Your task to perform on an android device: Show the shopping cart on target. Search for "asus zenbook" on target, select the first entry, and add it to the cart. Image 0: 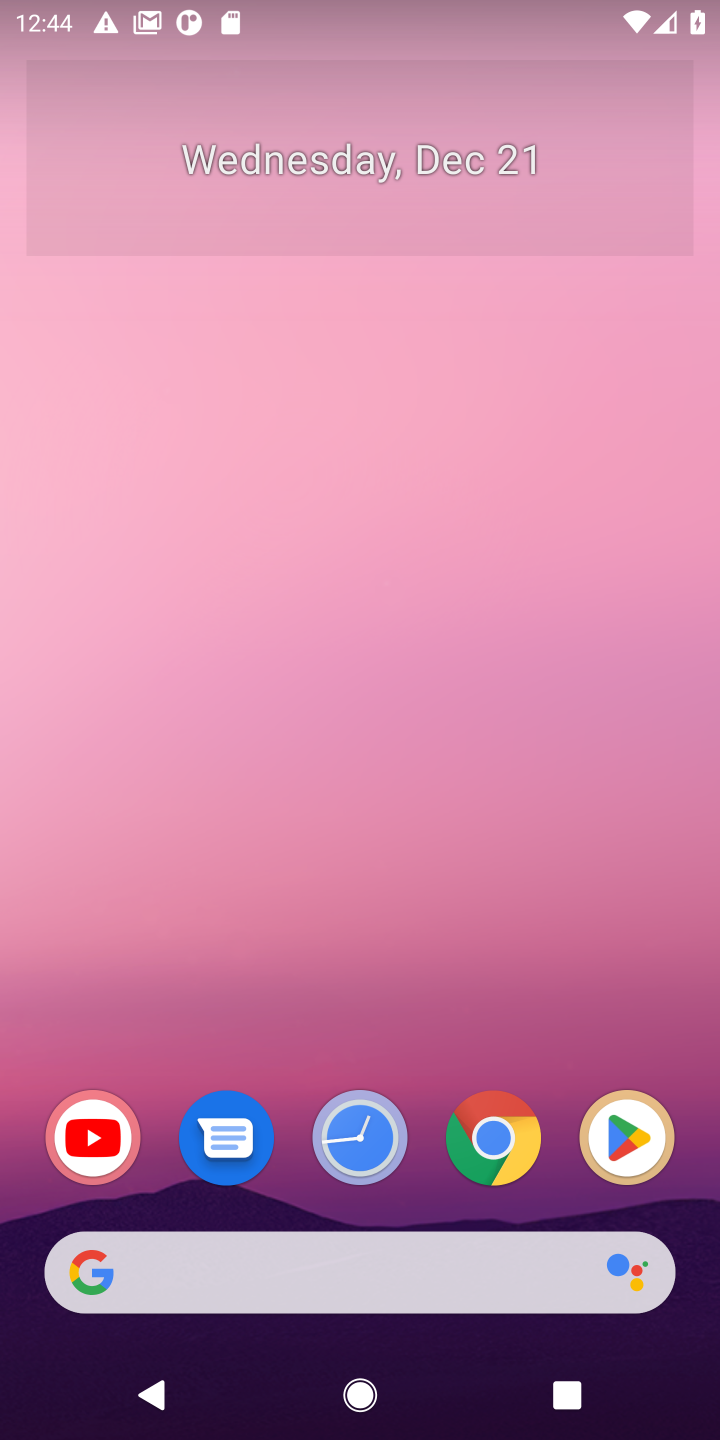
Step 0: click (511, 1162)
Your task to perform on an android device: Show the shopping cart on target. Search for "asus zenbook" on target, select the first entry, and add it to the cart. Image 1: 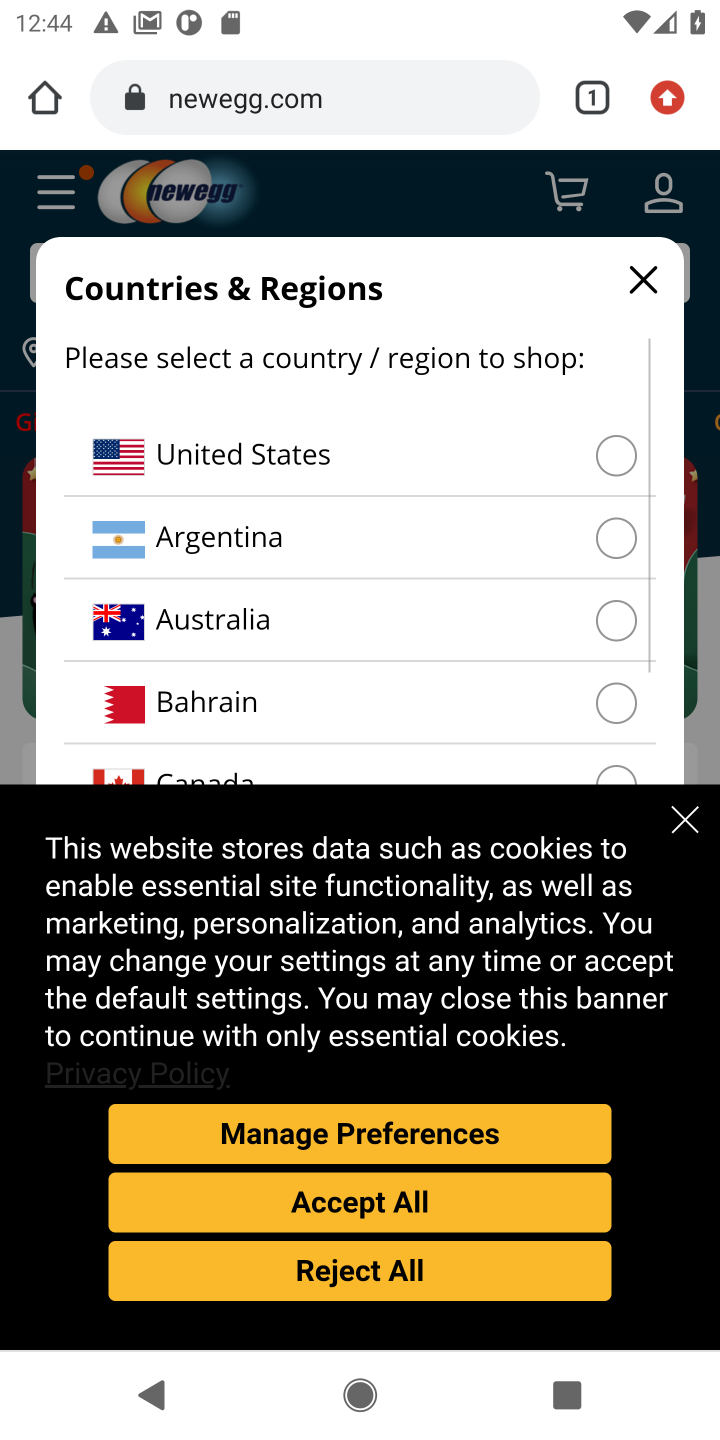
Step 1: click (357, 75)
Your task to perform on an android device: Show the shopping cart on target. Search for "asus zenbook" on target, select the first entry, and add it to the cart. Image 2: 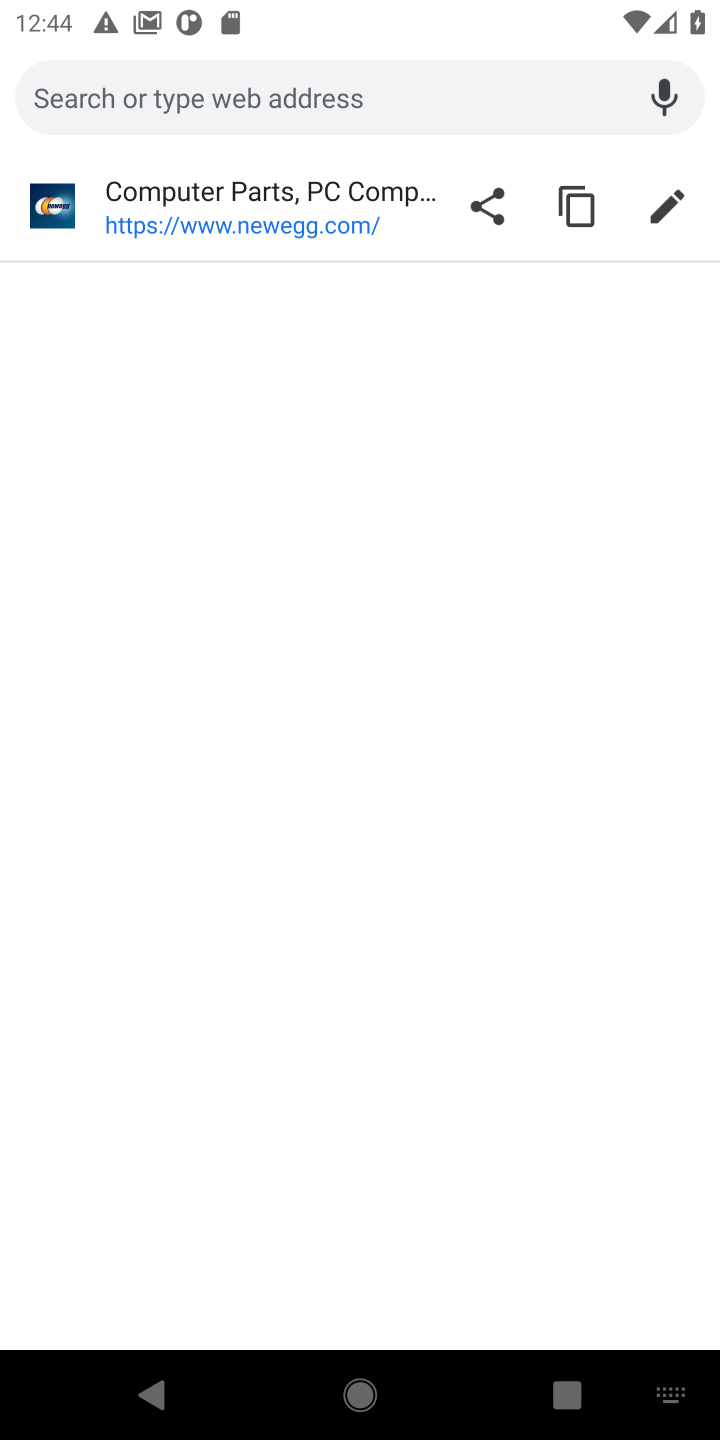
Step 2: type "target"
Your task to perform on an android device: Show the shopping cart on target. Search for "asus zenbook" on target, select the first entry, and add it to the cart. Image 3: 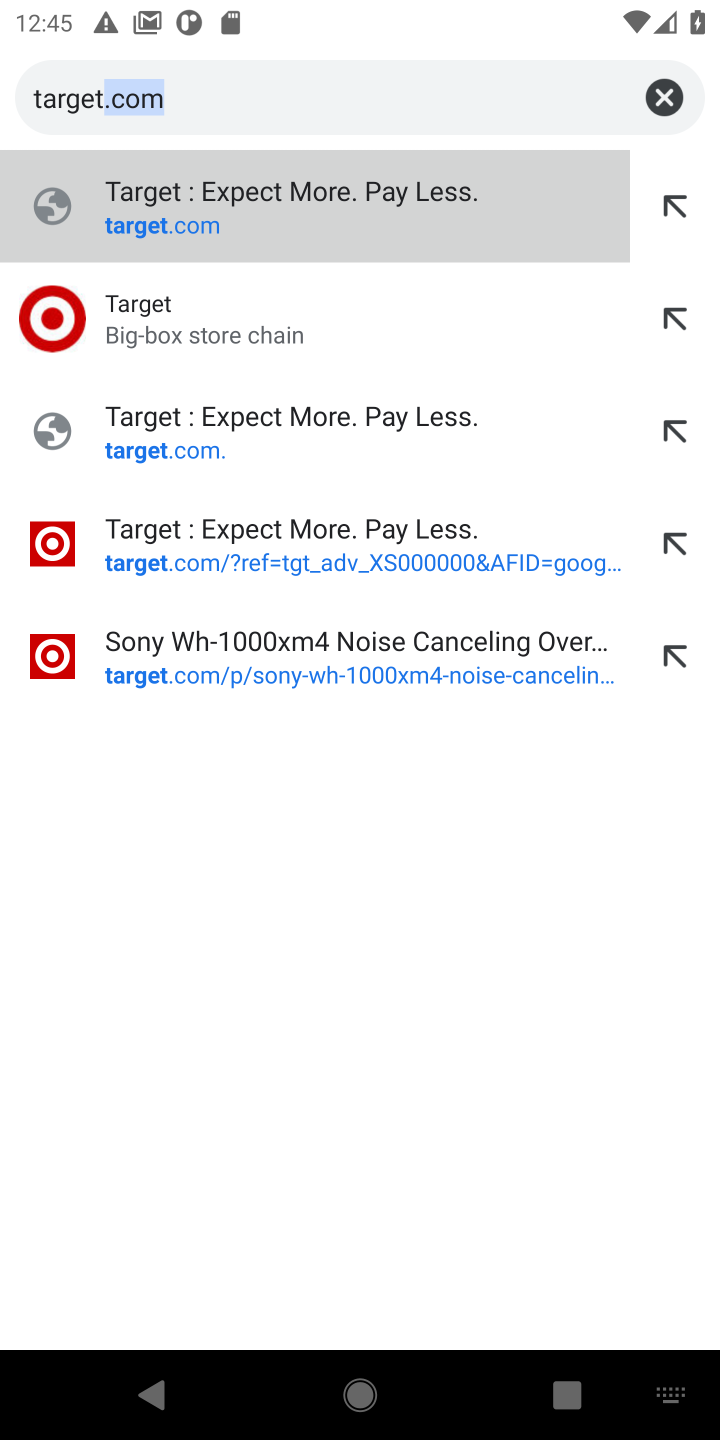
Step 3: click (340, 235)
Your task to perform on an android device: Show the shopping cart on target. Search for "asus zenbook" on target, select the first entry, and add it to the cart. Image 4: 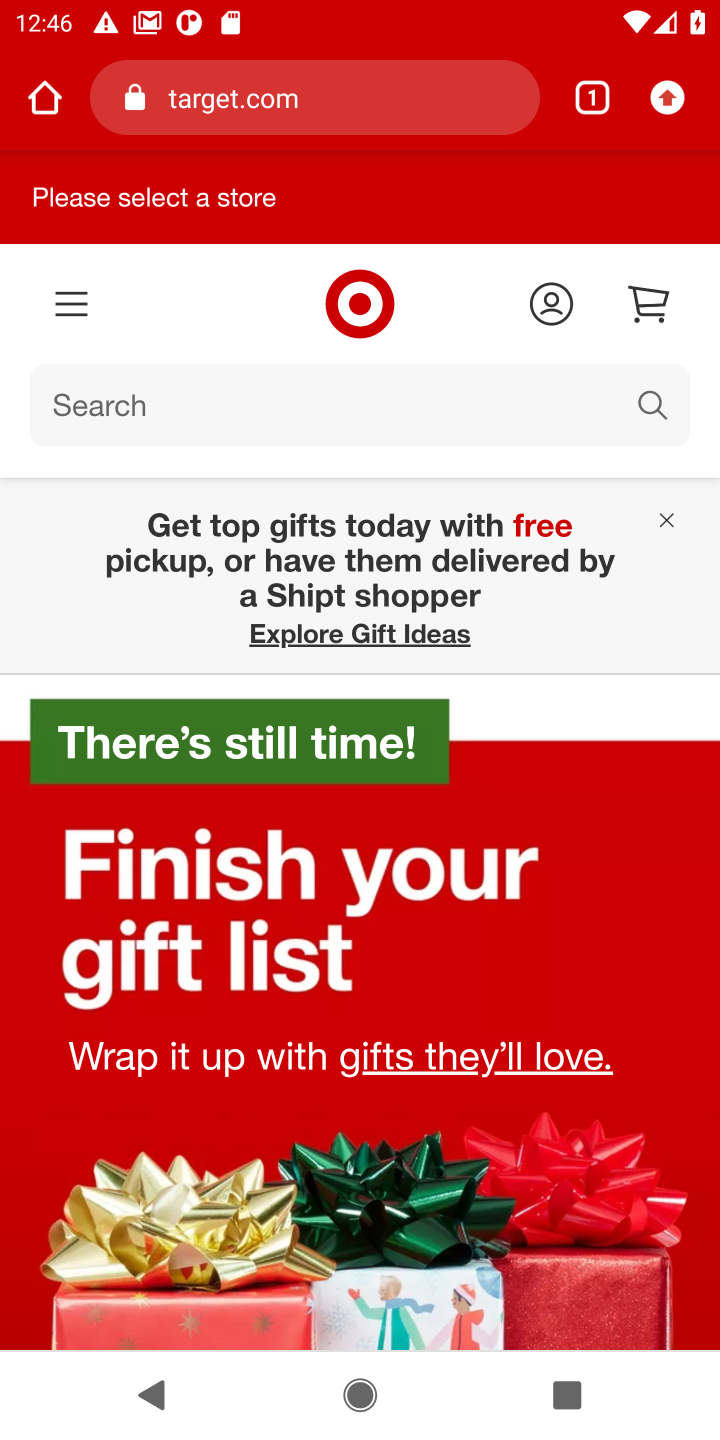
Step 4: click (308, 94)
Your task to perform on an android device: Show the shopping cart on target. Search for "asus zenbook" on target, select the first entry, and add it to the cart. Image 5: 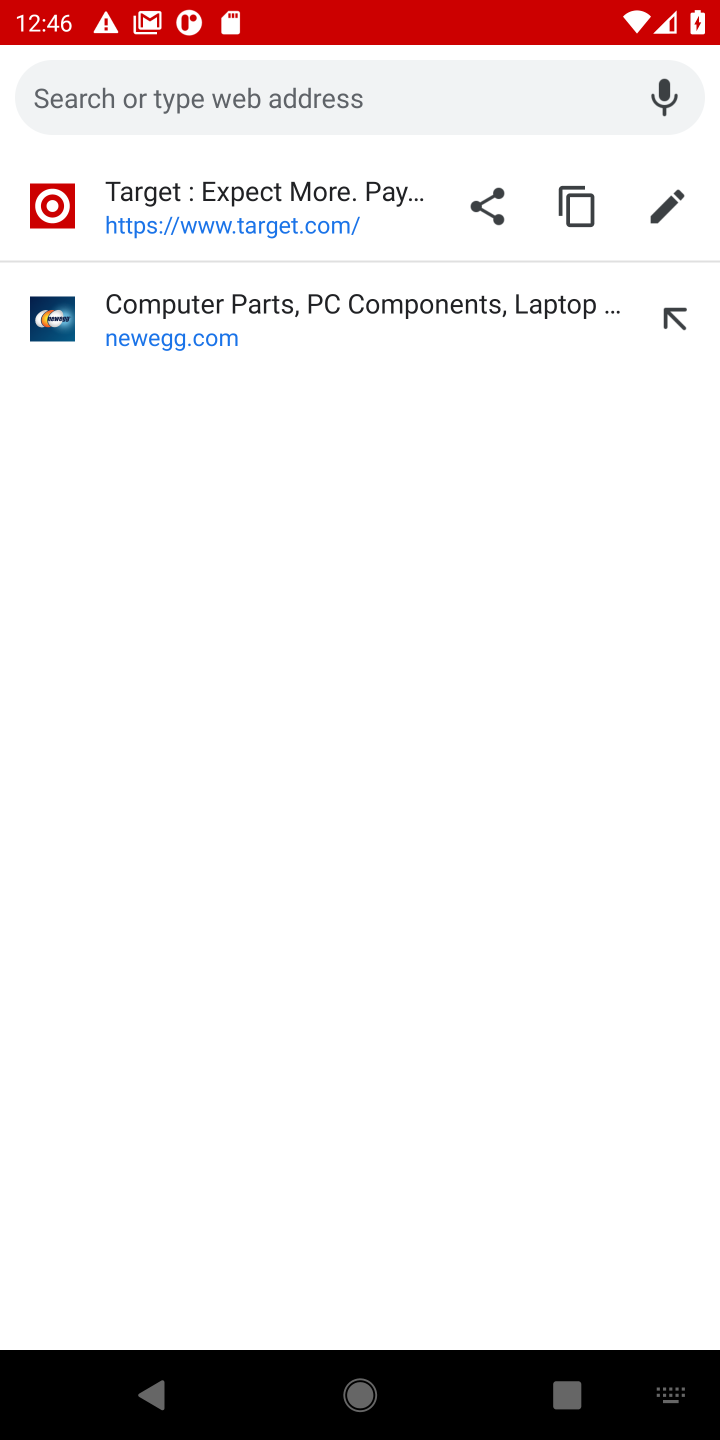
Step 5: click (115, 197)
Your task to perform on an android device: Show the shopping cart on target. Search for "asus zenbook" on target, select the first entry, and add it to the cart. Image 6: 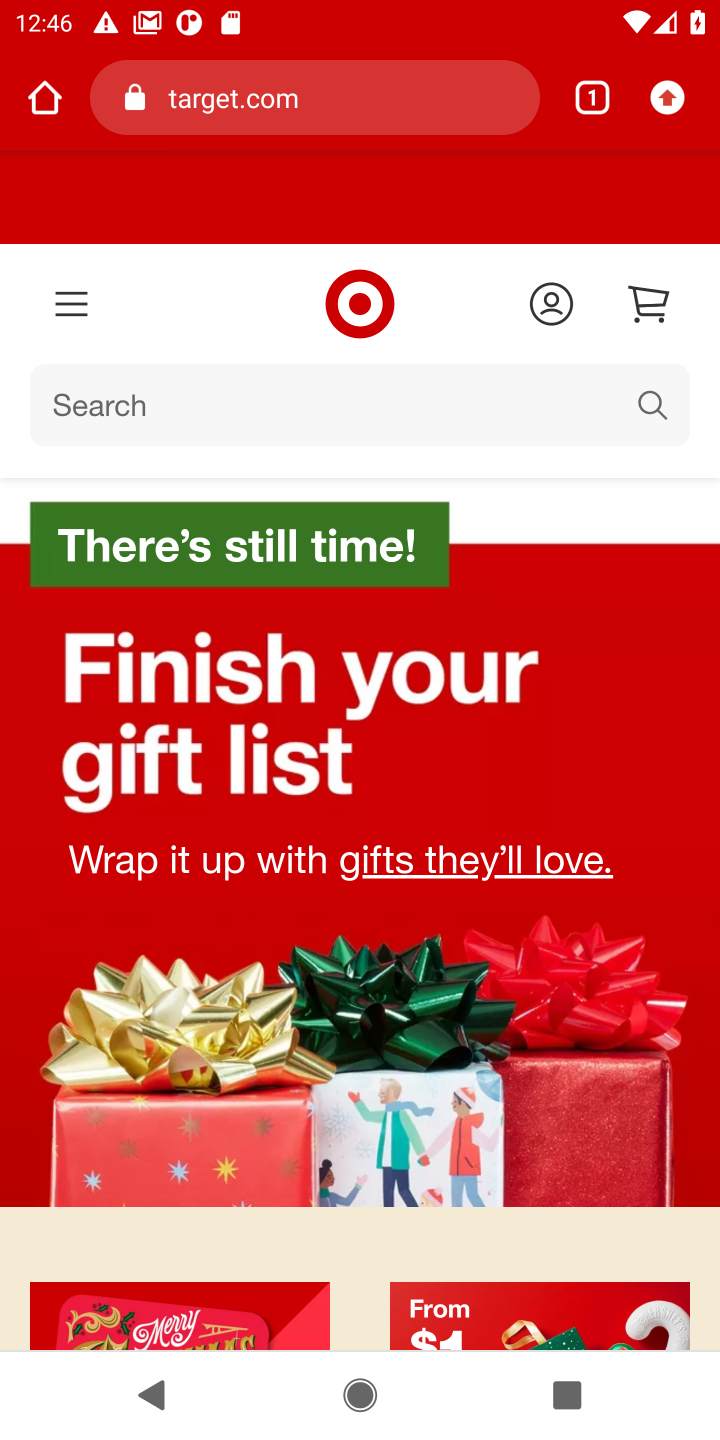
Step 6: click (362, 419)
Your task to perform on an android device: Show the shopping cart on target. Search for "asus zenbook" on target, select the first entry, and add it to the cart. Image 7: 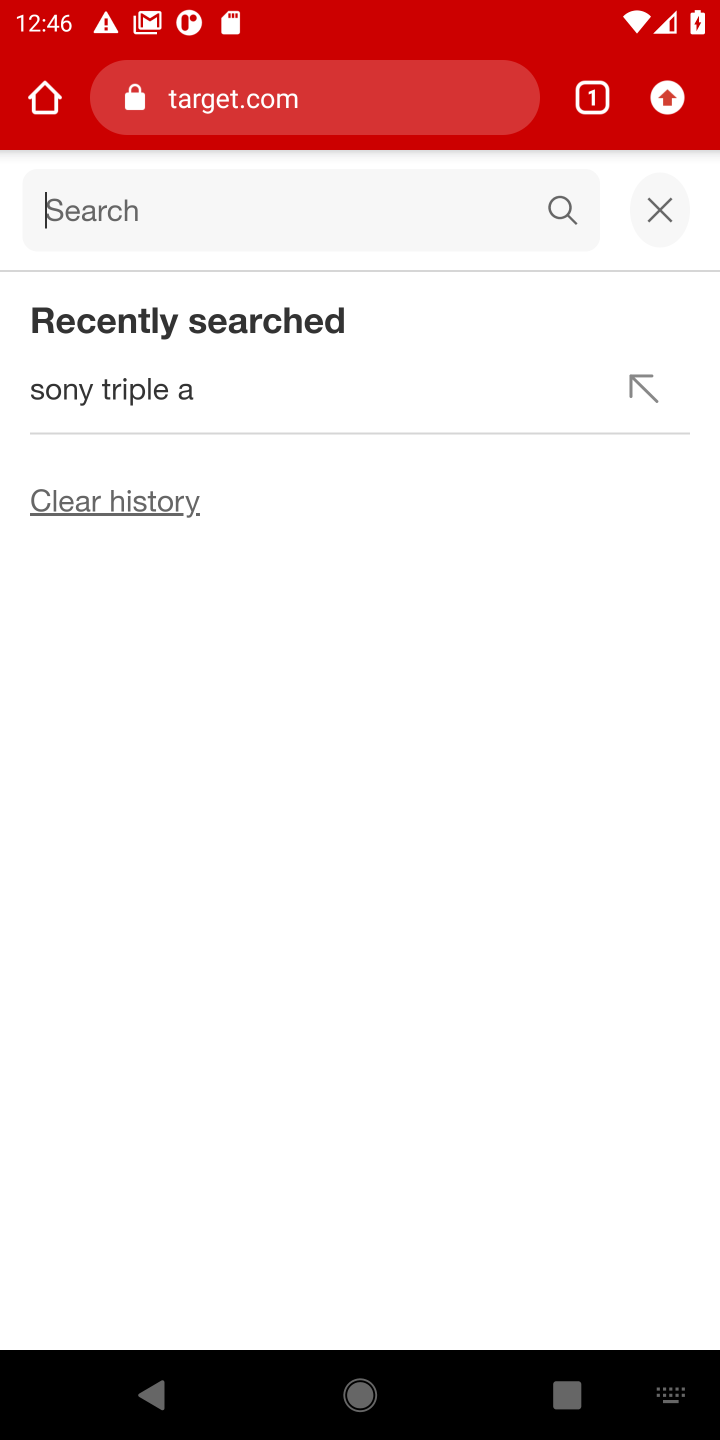
Step 7: type "auas zenbook"
Your task to perform on an android device: Show the shopping cart on target. Search for "asus zenbook" on target, select the first entry, and add it to the cart. Image 8: 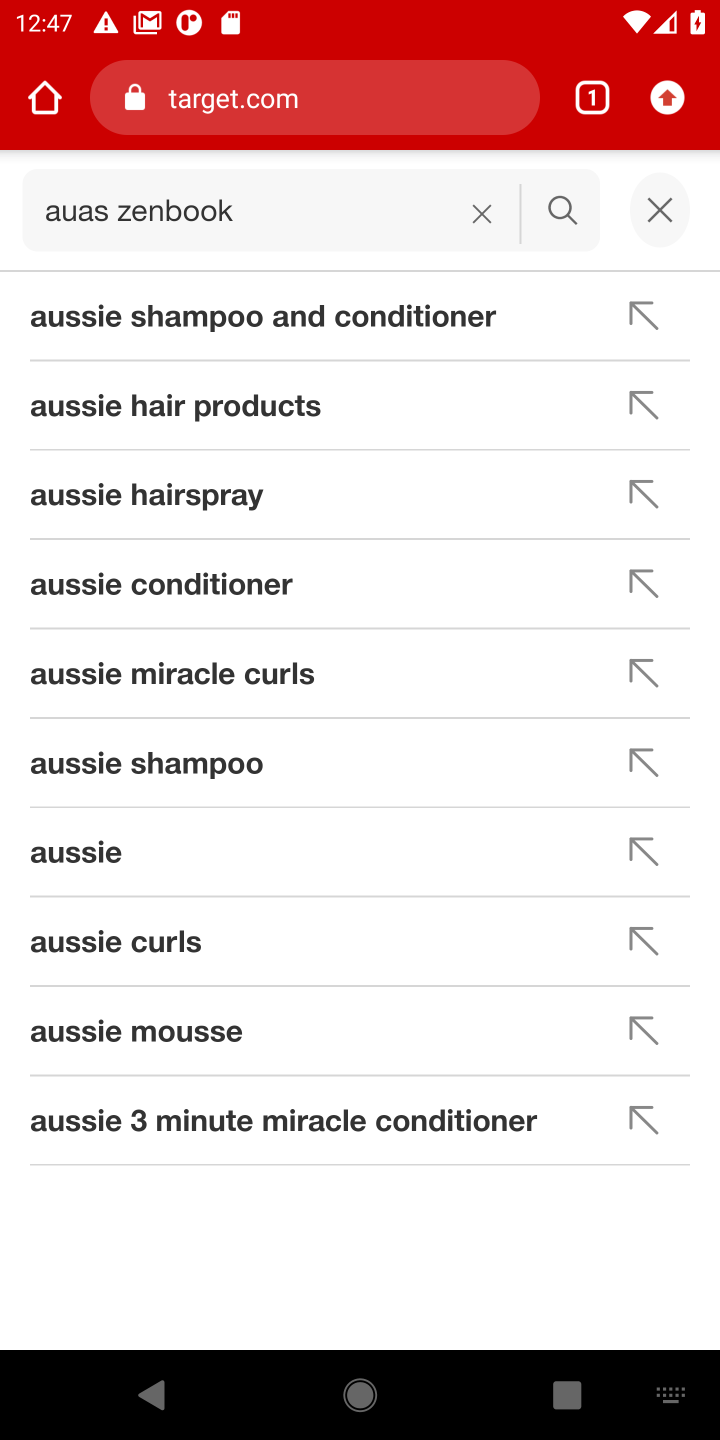
Step 8: click (575, 199)
Your task to perform on an android device: Show the shopping cart on target. Search for "asus zenbook" on target, select the first entry, and add it to the cart. Image 9: 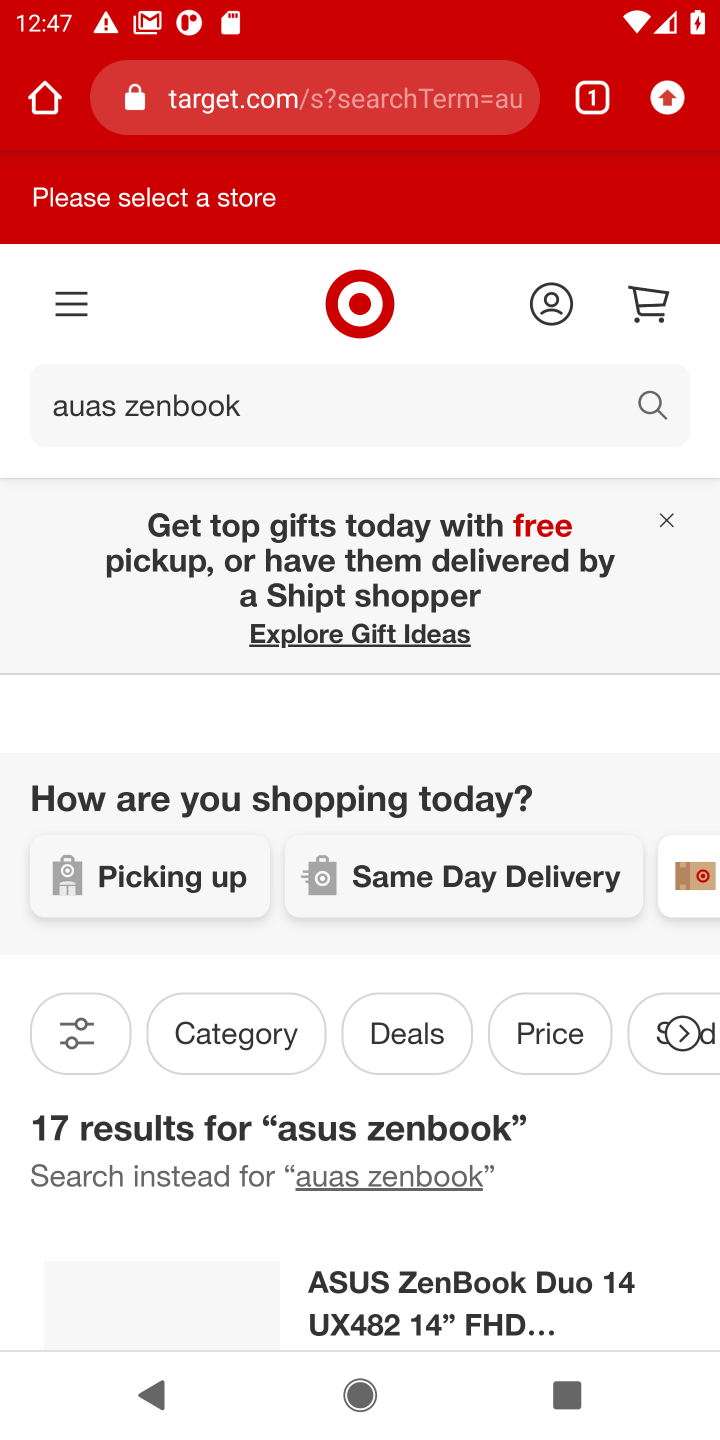
Step 9: task complete